Your task to perform on an android device: Open privacy settings Image 0: 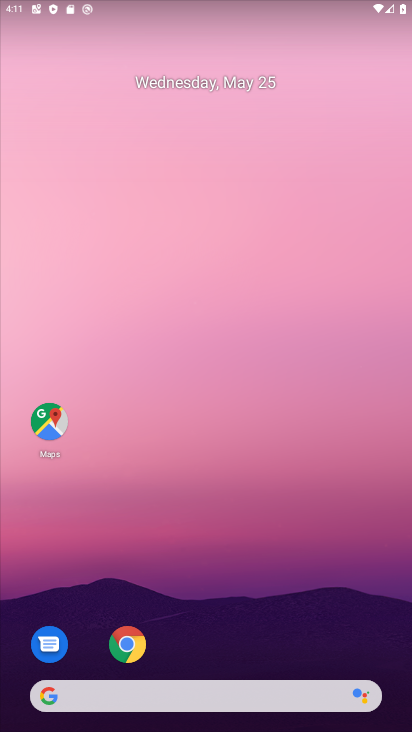
Step 0: drag from (267, 650) to (290, 74)
Your task to perform on an android device: Open privacy settings Image 1: 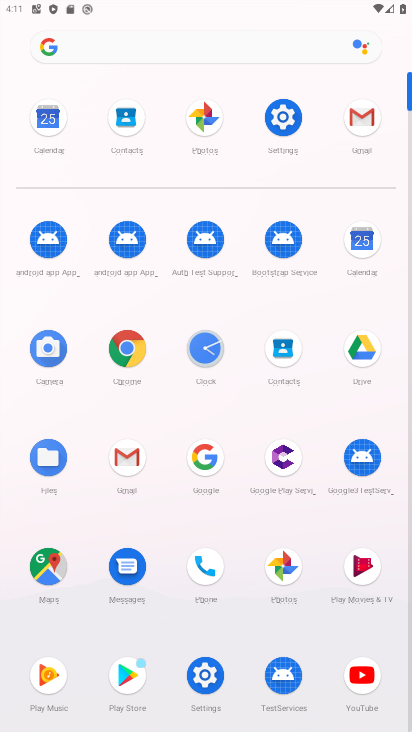
Step 1: click (286, 120)
Your task to perform on an android device: Open privacy settings Image 2: 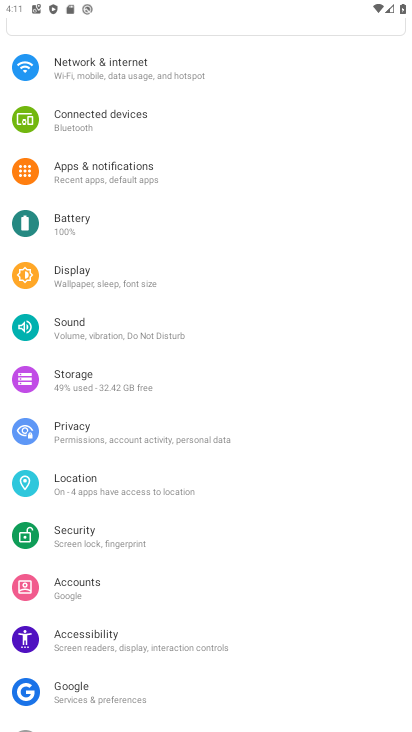
Step 2: click (76, 430)
Your task to perform on an android device: Open privacy settings Image 3: 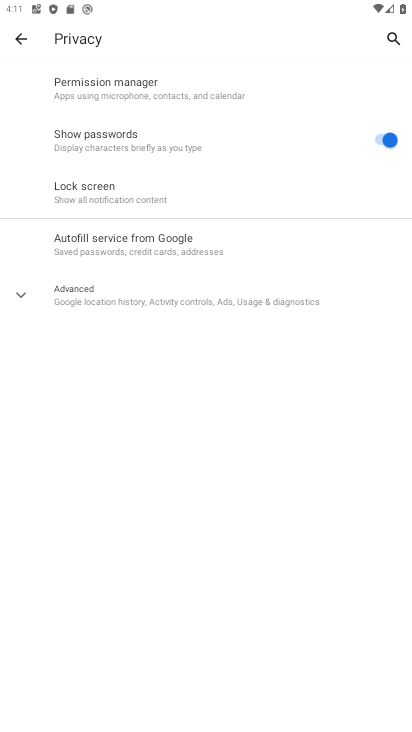
Step 3: task complete